Your task to perform on an android device: Open the web browser Image 0: 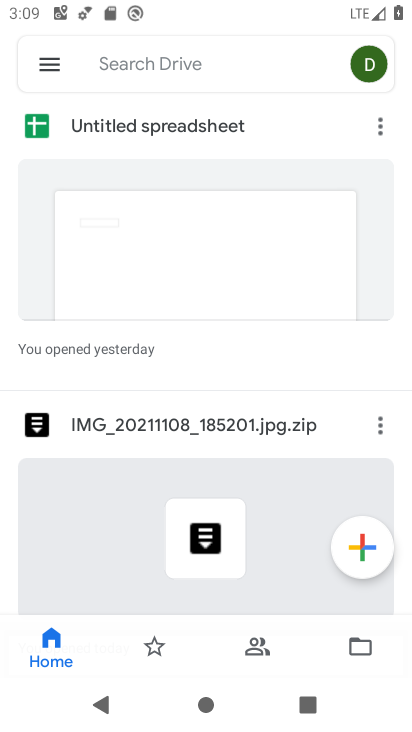
Step 0: press home button
Your task to perform on an android device: Open the web browser Image 1: 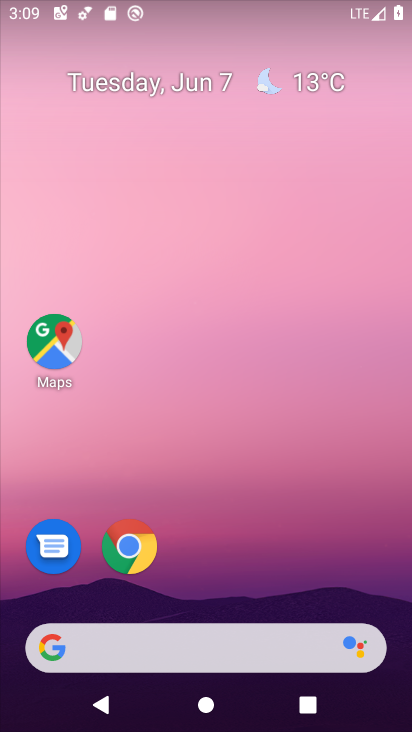
Step 1: drag from (346, 586) to (361, 101)
Your task to perform on an android device: Open the web browser Image 2: 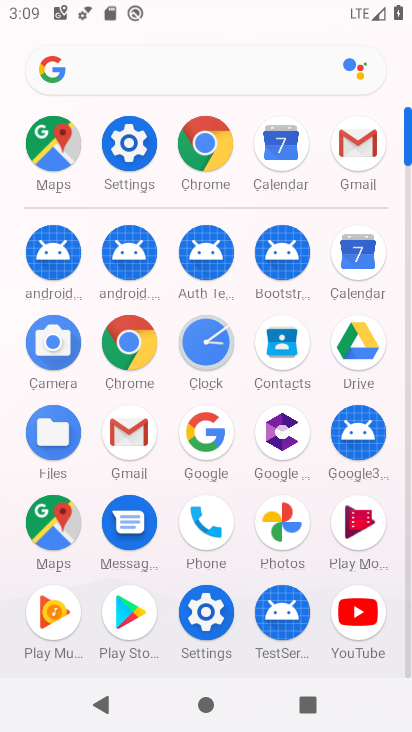
Step 2: click (120, 336)
Your task to perform on an android device: Open the web browser Image 3: 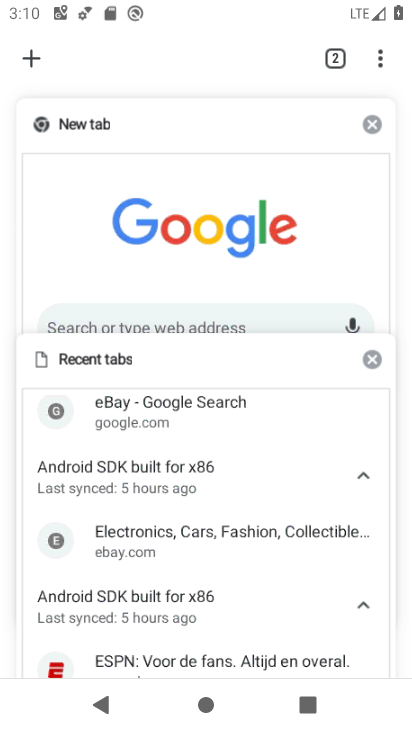
Step 3: task complete